Your task to perform on an android device: move an email to a new category in the gmail app Image 0: 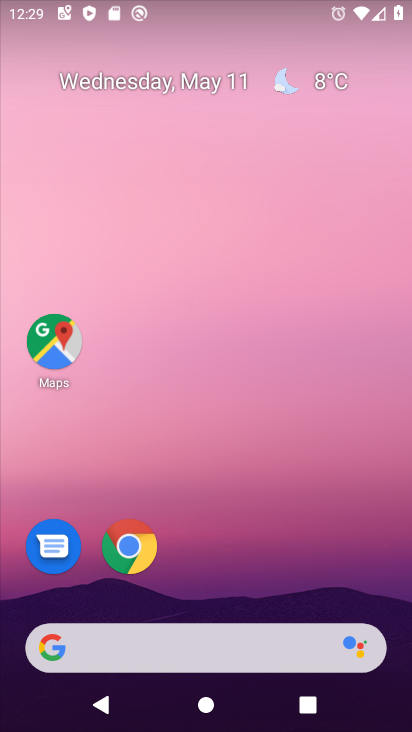
Step 0: drag from (199, 662) to (359, 56)
Your task to perform on an android device: move an email to a new category in the gmail app Image 1: 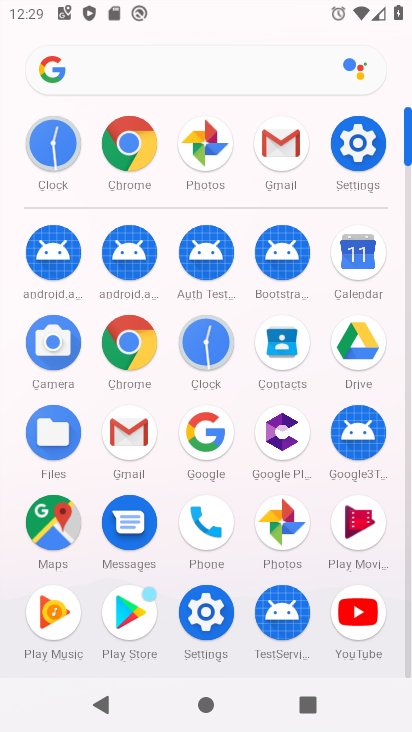
Step 1: click (279, 153)
Your task to perform on an android device: move an email to a new category in the gmail app Image 2: 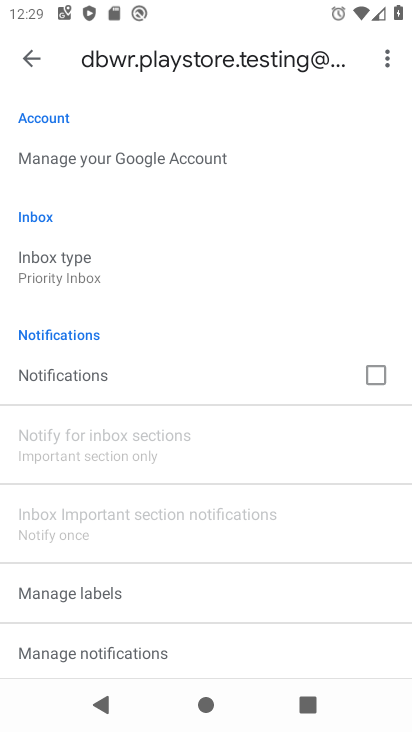
Step 2: click (33, 62)
Your task to perform on an android device: move an email to a new category in the gmail app Image 3: 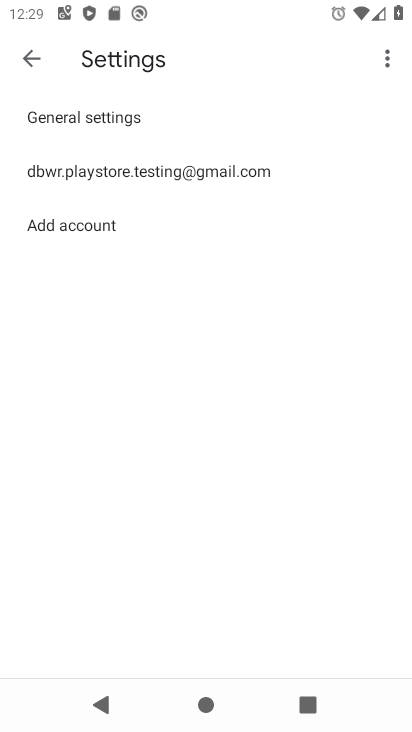
Step 3: click (33, 62)
Your task to perform on an android device: move an email to a new category in the gmail app Image 4: 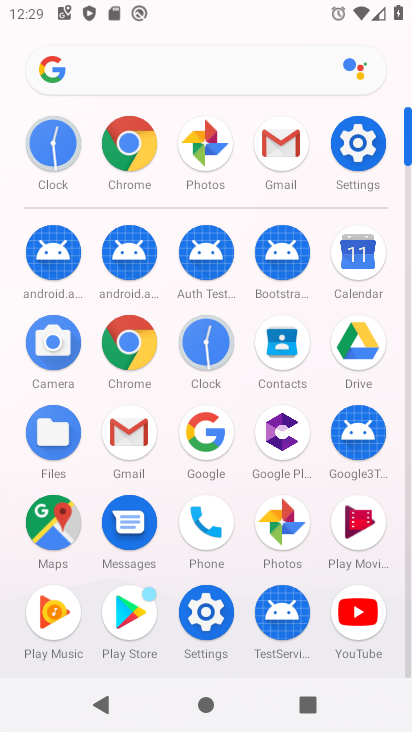
Step 4: click (280, 156)
Your task to perform on an android device: move an email to a new category in the gmail app Image 5: 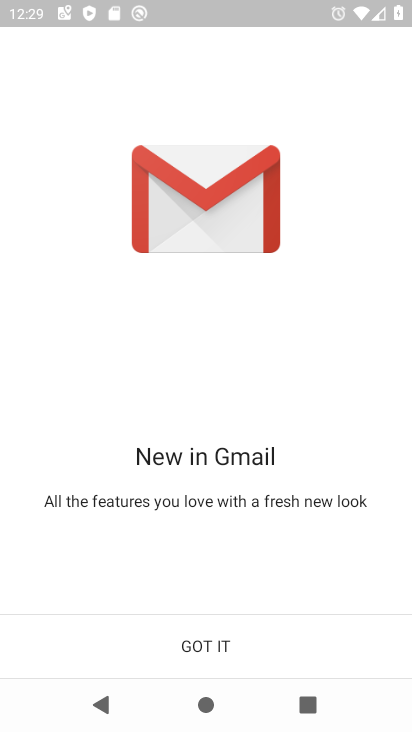
Step 5: click (246, 651)
Your task to perform on an android device: move an email to a new category in the gmail app Image 6: 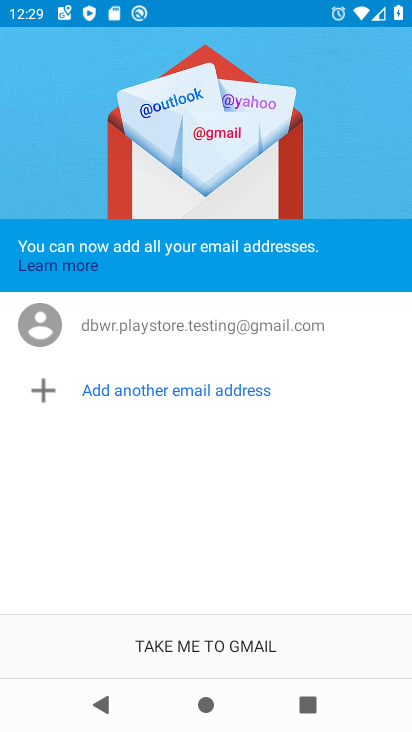
Step 6: click (246, 650)
Your task to perform on an android device: move an email to a new category in the gmail app Image 7: 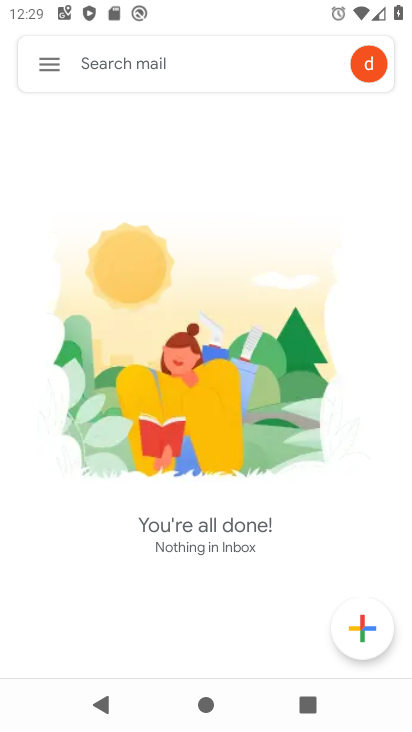
Step 7: task complete